Your task to perform on an android device: turn off smart reply in the gmail app Image 0: 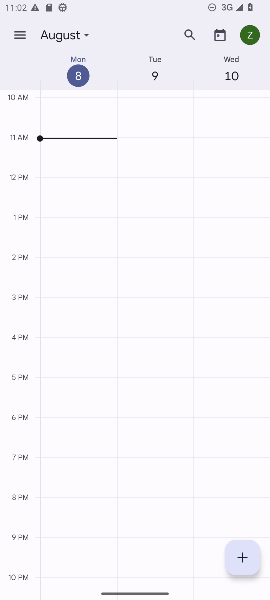
Step 0: press home button
Your task to perform on an android device: turn off smart reply in the gmail app Image 1: 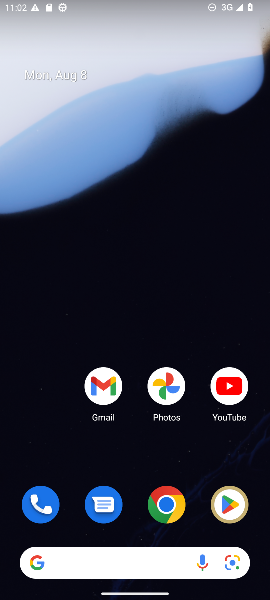
Step 1: click (110, 399)
Your task to perform on an android device: turn off smart reply in the gmail app Image 2: 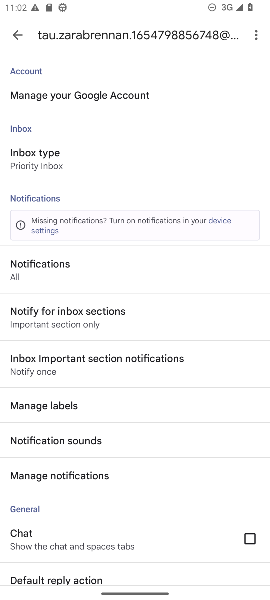
Step 2: task complete